Your task to perform on an android device: Clear the shopping cart on amazon.com. Add "razer nari" to the cart on amazon.com Image 0: 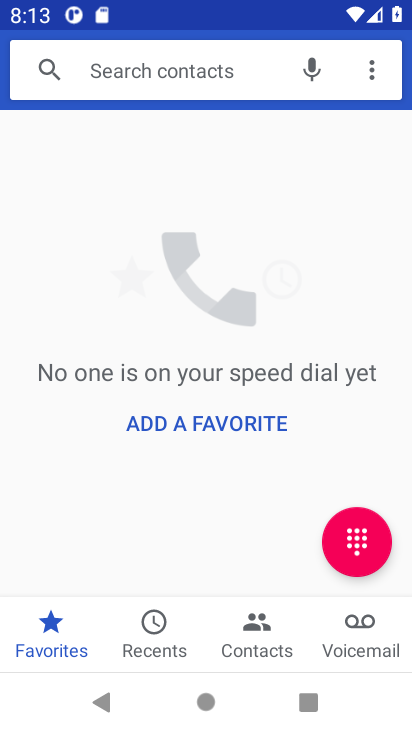
Step 0: press home button
Your task to perform on an android device: Clear the shopping cart on amazon.com. Add "razer nari" to the cart on amazon.com Image 1: 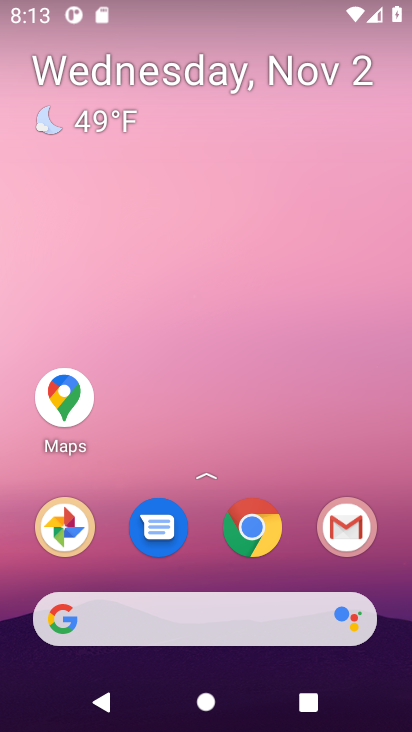
Step 1: click (260, 529)
Your task to perform on an android device: Clear the shopping cart on amazon.com. Add "razer nari" to the cart on amazon.com Image 2: 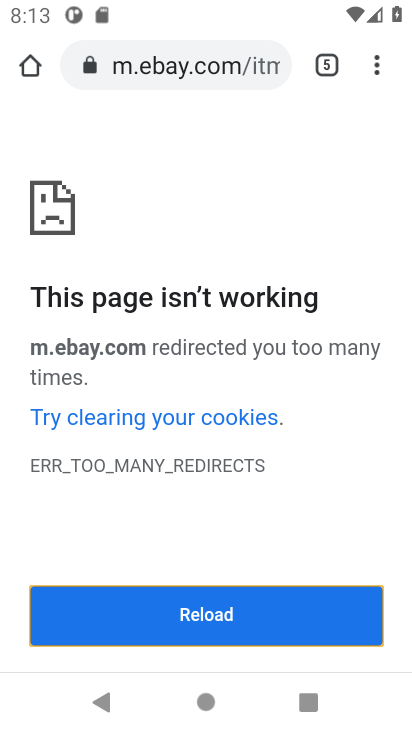
Step 2: click (219, 64)
Your task to perform on an android device: Clear the shopping cart on amazon.com. Add "razer nari" to the cart on amazon.com Image 3: 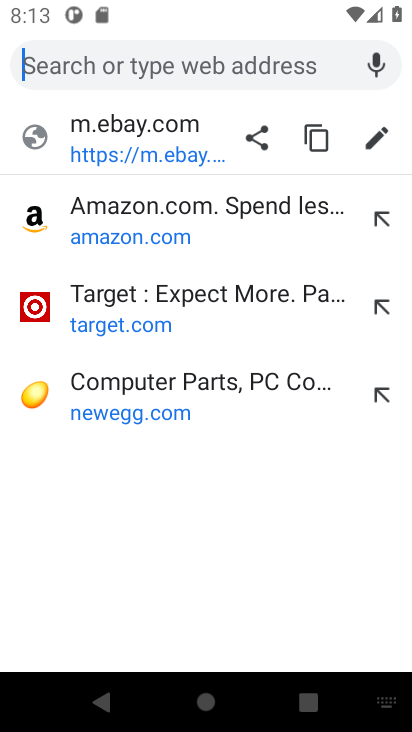
Step 3: type "amazon.com"
Your task to perform on an android device: Clear the shopping cart on amazon.com. Add "razer nari" to the cart on amazon.com Image 4: 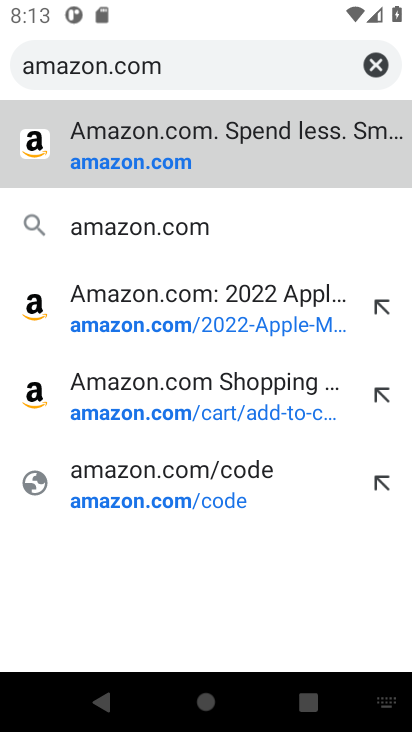
Step 4: click (261, 158)
Your task to perform on an android device: Clear the shopping cart on amazon.com. Add "razer nari" to the cart on amazon.com Image 5: 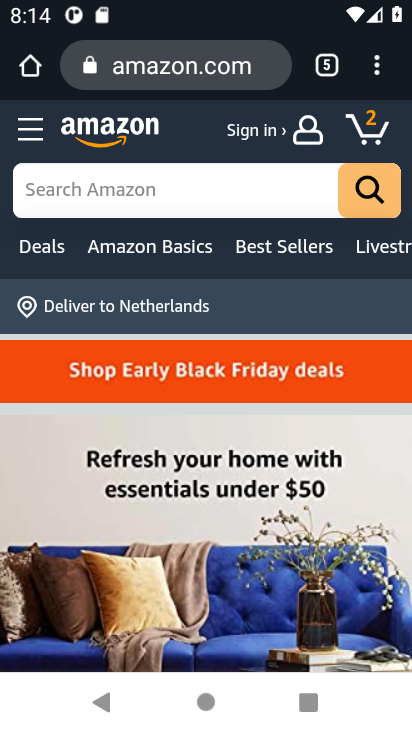
Step 5: drag from (202, 272) to (222, 102)
Your task to perform on an android device: Clear the shopping cart on amazon.com. Add "razer nari" to the cart on amazon.com Image 6: 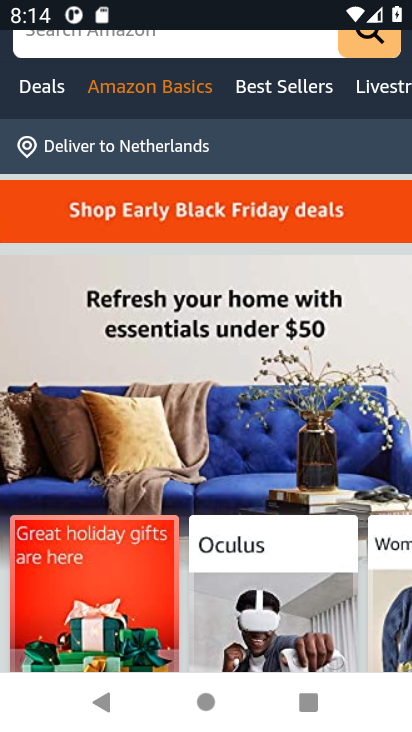
Step 6: drag from (349, 462) to (203, 671)
Your task to perform on an android device: Clear the shopping cart on amazon.com. Add "razer nari" to the cart on amazon.com Image 7: 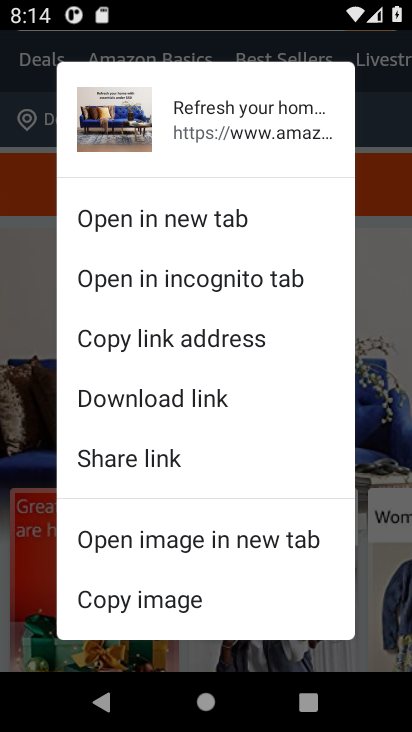
Step 7: click (396, 261)
Your task to perform on an android device: Clear the shopping cart on amazon.com. Add "razer nari" to the cart on amazon.com Image 8: 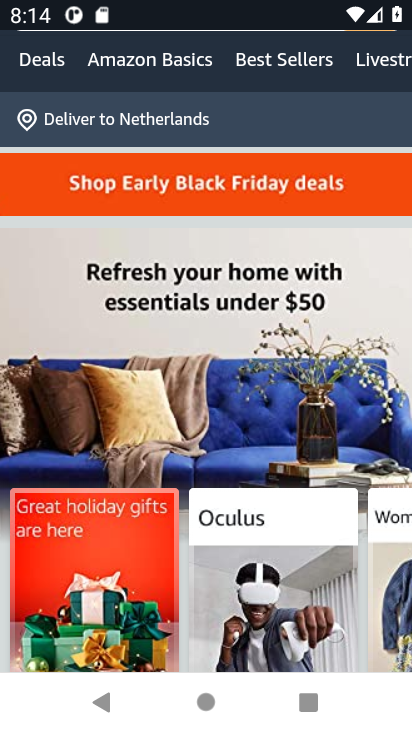
Step 8: drag from (380, 207) to (309, 687)
Your task to perform on an android device: Clear the shopping cart on amazon.com. Add "razer nari" to the cart on amazon.com Image 9: 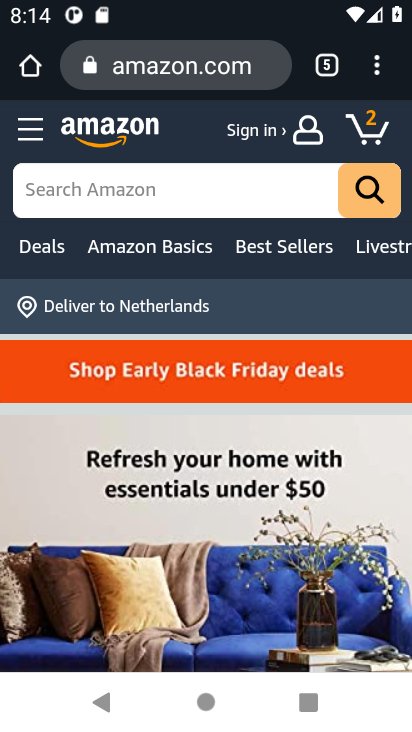
Step 9: click (372, 137)
Your task to perform on an android device: Clear the shopping cart on amazon.com. Add "razer nari" to the cart on amazon.com Image 10: 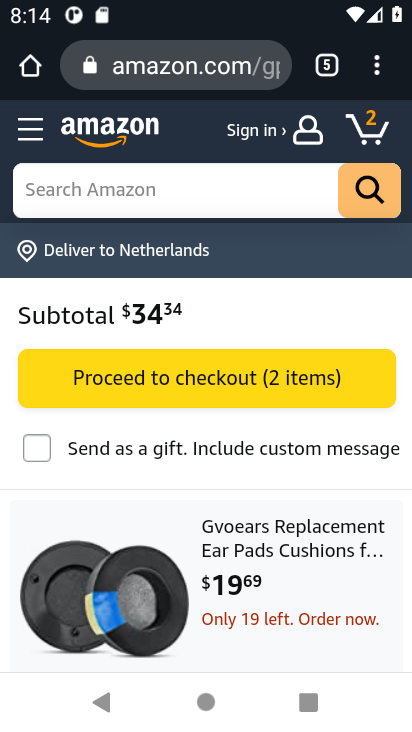
Step 10: drag from (326, 606) to (302, 314)
Your task to perform on an android device: Clear the shopping cart on amazon.com. Add "razer nari" to the cart on amazon.com Image 11: 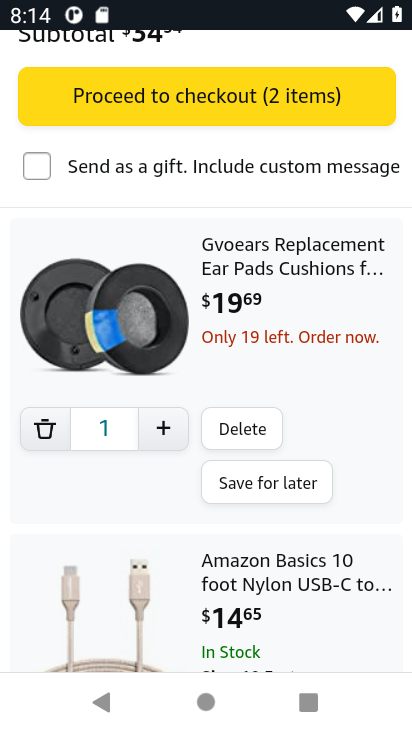
Step 11: click (247, 432)
Your task to perform on an android device: Clear the shopping cart on amazon.com. Add "razer nari" to the cart on amazon.com Image 12: 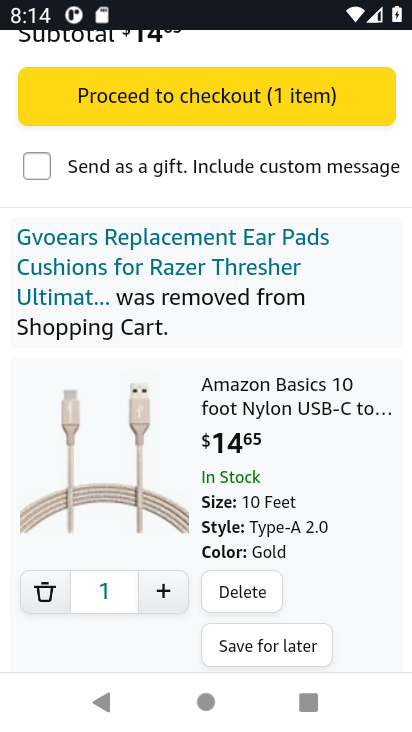
Step 12: click (242, 595)
Your task to perform on an android device: Clear the shopping cart on amazon.com. Add "razer nari" to the cart on amazon.com Image 13: 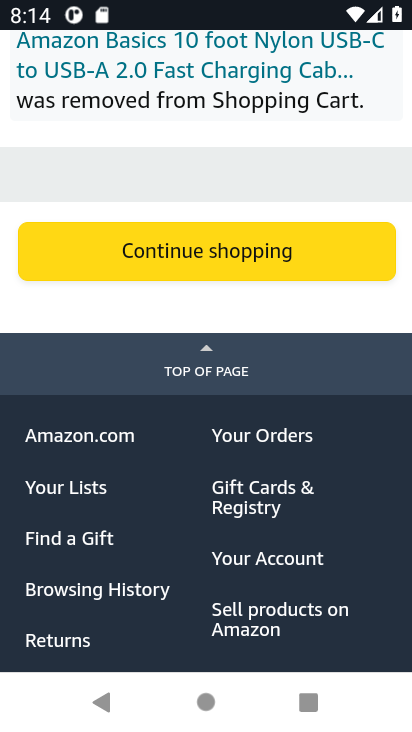
Step 13: click (268, 256)
Your task to perform on an android device: Clear the shopping cart on amazon.com. Add "razer nari" to the cart on amazon.com Image 14: 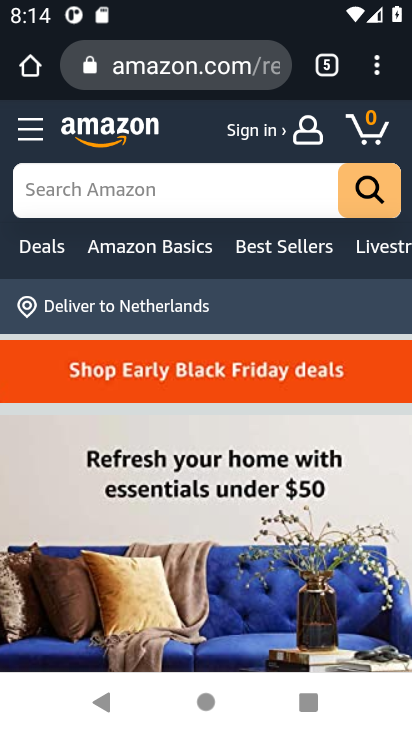
Step 14: click (245, 193)
Your task to perform on an android device: Clear the shopping cart on amazon.com. Add "razer nari" to the cart on amazon.com Image 15: 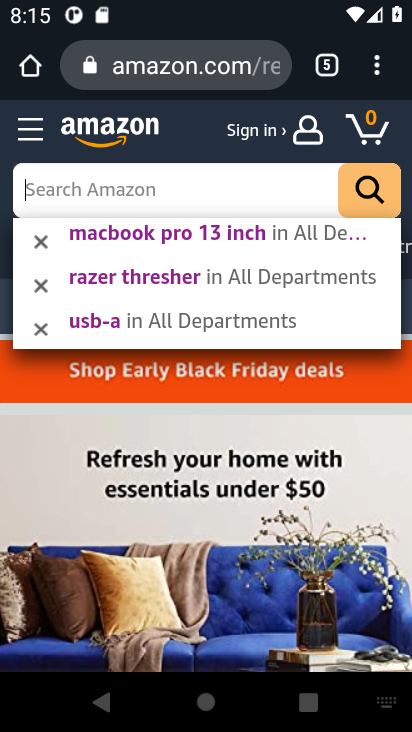
Step 15: type "razer nari"
Your task to perform on an android device: Clear the shopping cart on amazon.com. Add "razer nari" to the cart on amazon.com Image 16: 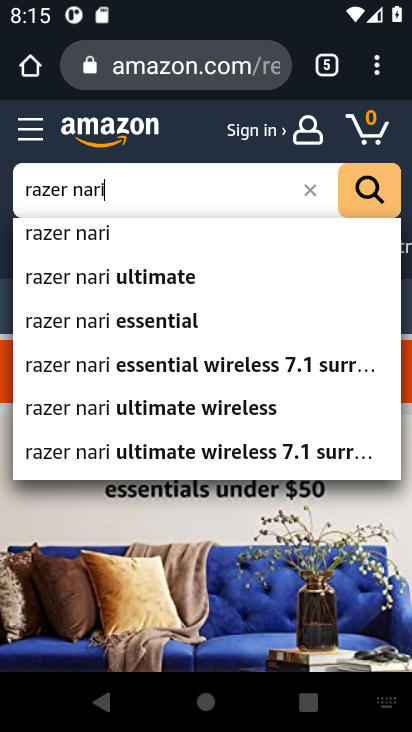
Step 16: click (50, 235)
Your task to perform on an android device: Clear the shopping cart on amazon.com. Add "razer nari" to the cart on amazon.com Image 17: 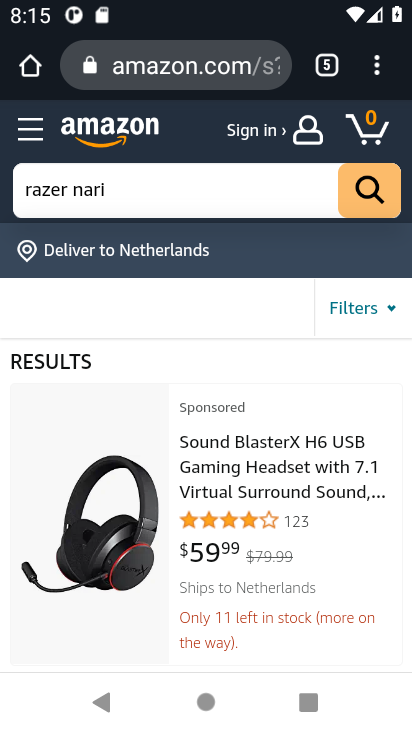
Step 17: drag from (369, 553) to (361, 287)
Your task to perform on an android device: Clear the shopping cart on amazon.com. Add "razer nari" to the cart on amazon.com Image 18: 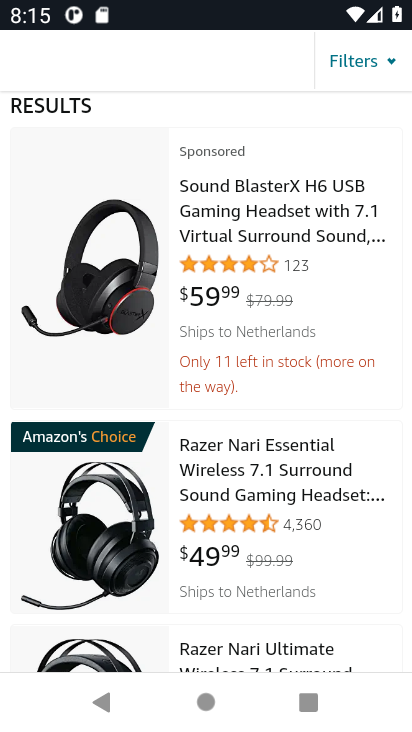
Step 18: click (147, 506)
Your task to perform on an android device: Clear the shopping cart on amazon.com. Add "razer nari" to the cart on amazon.com Image 19: 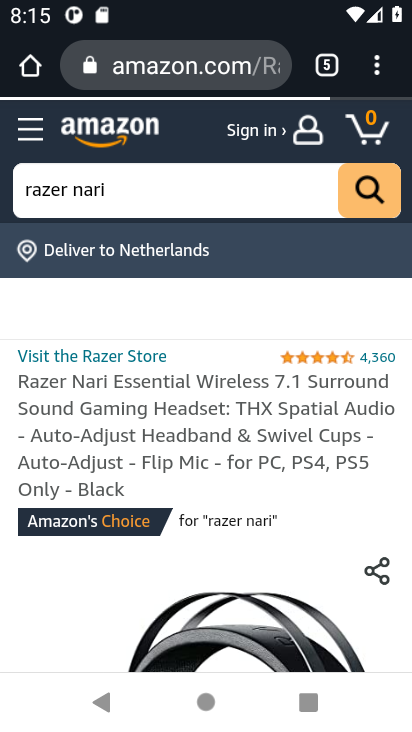
Step 19: drag from (280, 556) to (199, 55)
Your task to perform on an android device: Clear the shopping cart on amazon.com. Add "razer nari" to the cart on amazon.com Image 20: 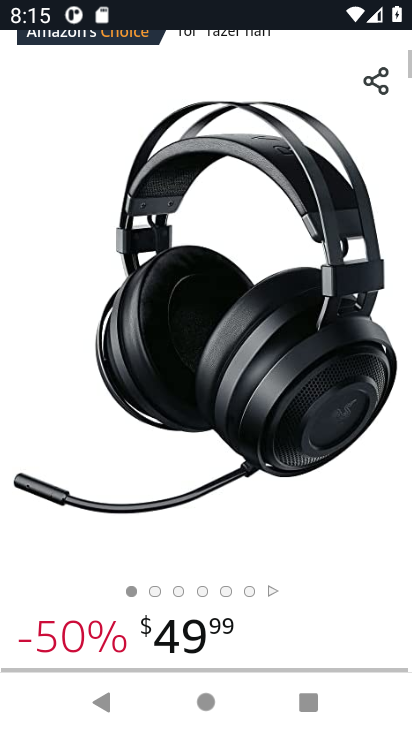
Step 20: drag from (284, 513) to (284, 3)
Your task to perform on an android device: Clear the shopping cart on amazon.com. Add "razer nari" to the cart on amazon.com Image 21: 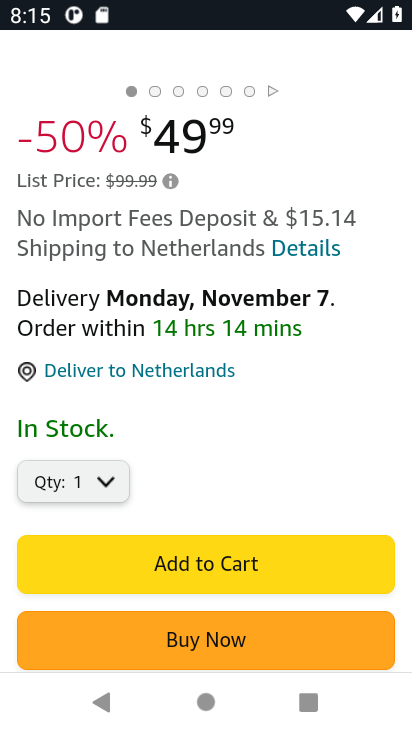
Step 21: click (258, 575)
Your task to perform on an android device: Clear the shopping cart on amazon.com. Add "razer nari" to the cart on amazon.com Image 22: 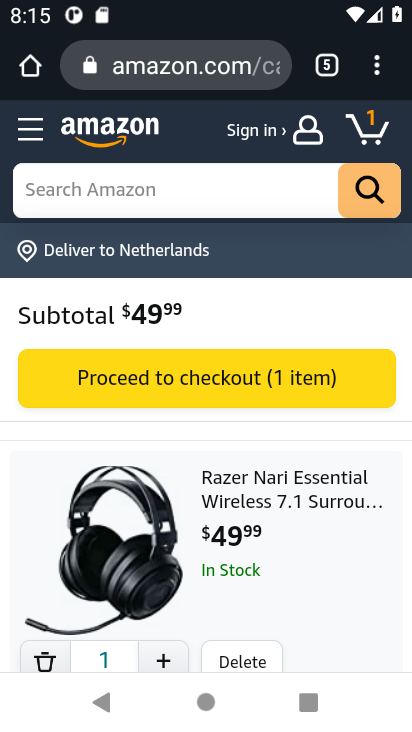
Step 22: task complete